Your task to perform on an android device: all mails in gmail Image 0: 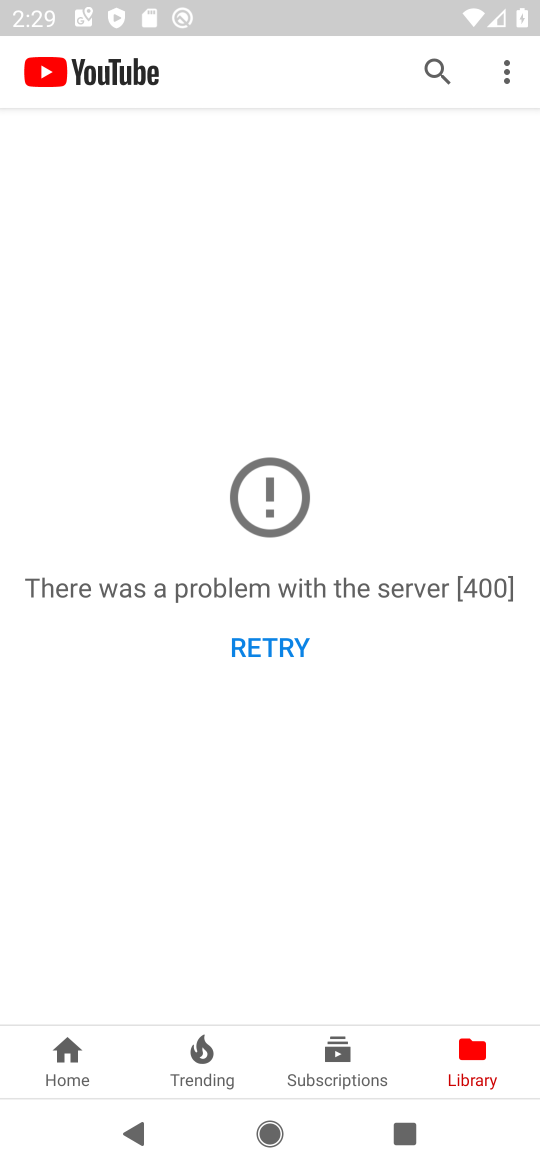
Step 0: press home button
Your task to perform on an android device: all mails in gmail Image 1: 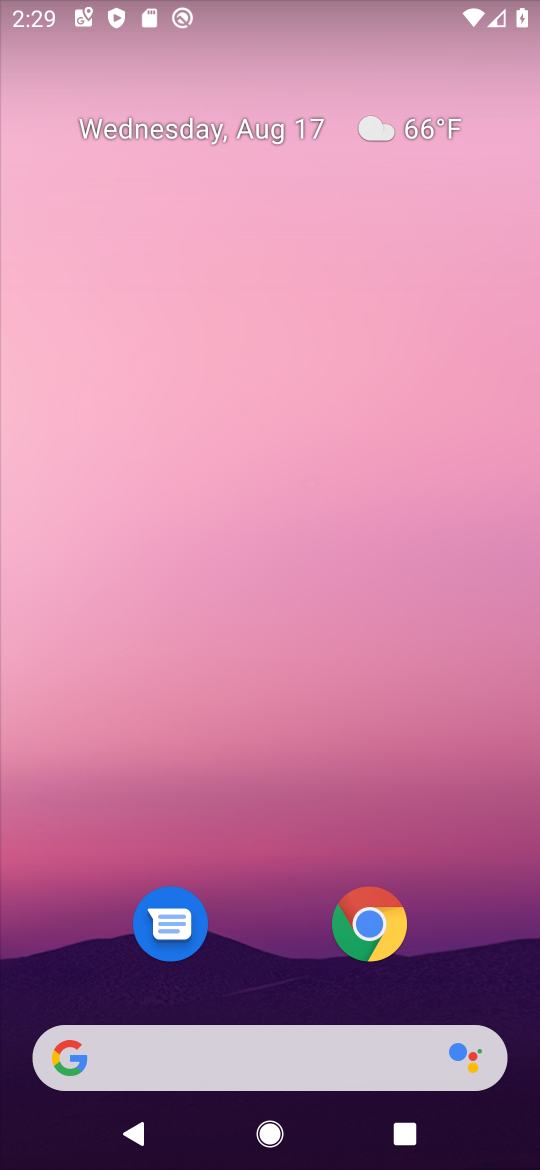
Step 1: drag from (235, 1053) to (254, 375)
Your task to perform on an android device: all mails in gmail Image 2: 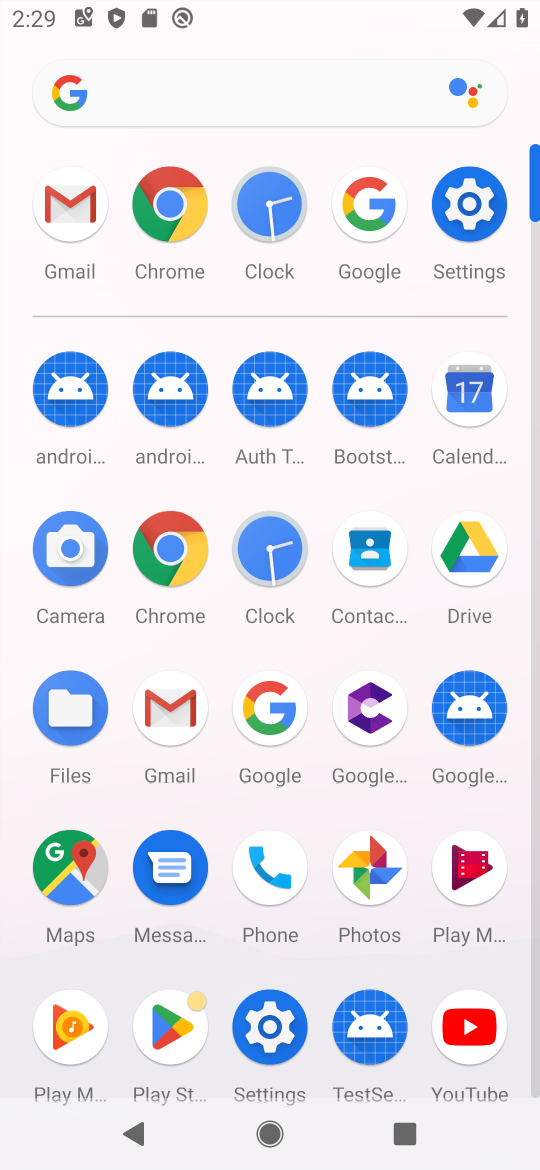
Step 2: click (73, 206)
Your task to perform on an android device: all mails in gmail Image 3: 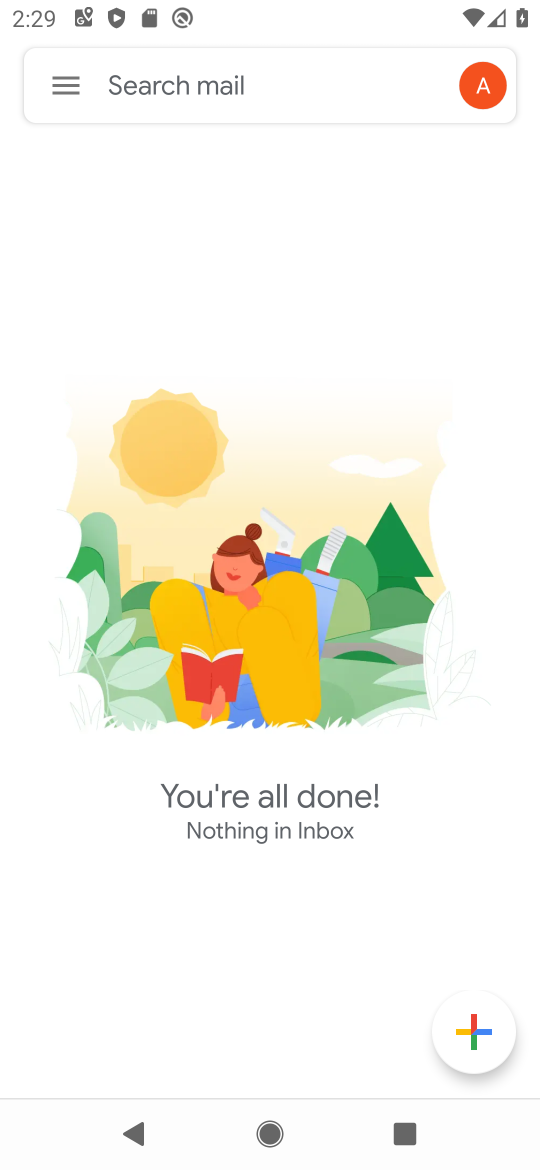
Step 3: click (65, 96)
Your task to perform on an android device: all mails in gmail Image 4: 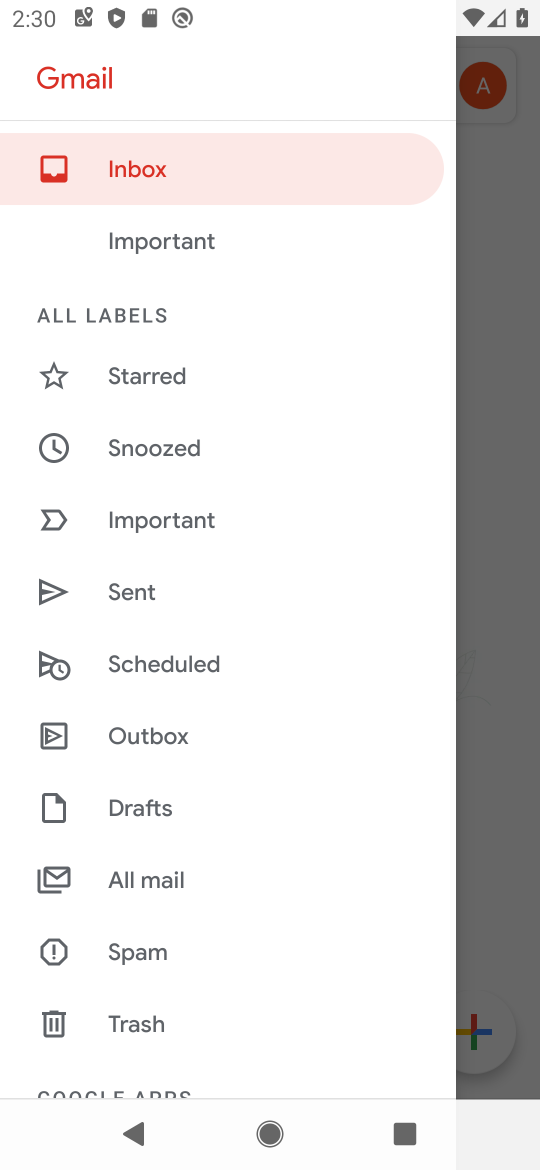
Step 4: click (145, 879)
Your task to perform on an android device: all mails in gmail Image 5: 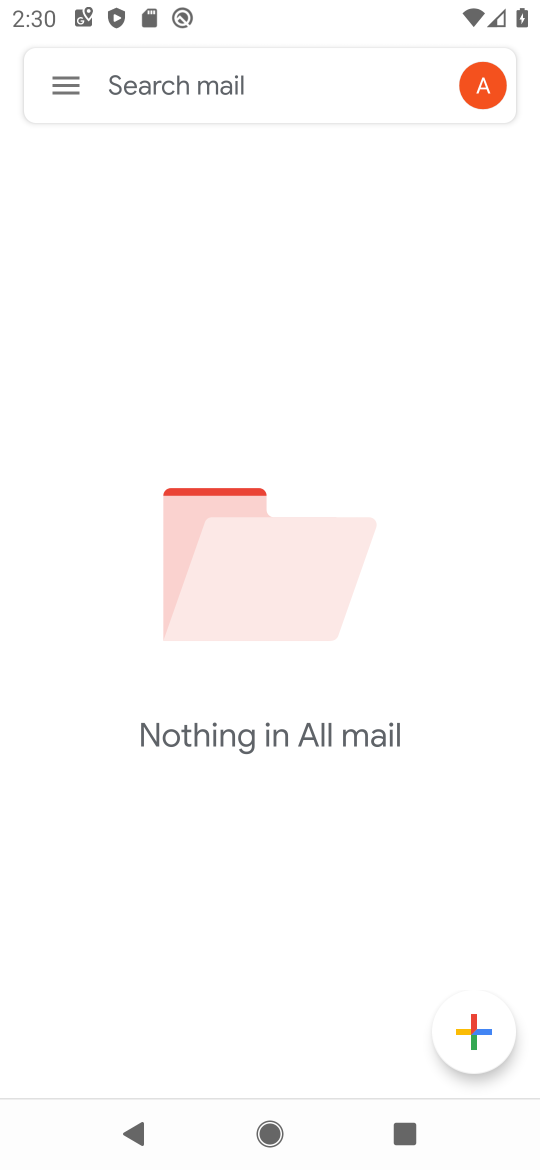
Step 5: task complete